Your task to perform on an android device: Open calendar and show me the fourth week of next month Image 0: 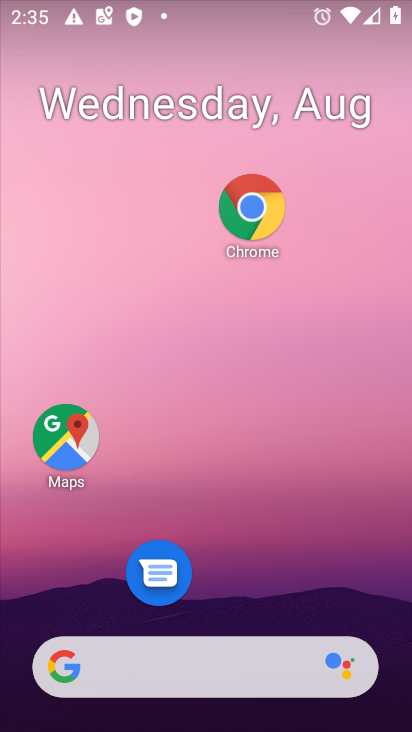
Step 0: drag from (207, 644) to (302, 207)
Your task to perform on an android device: Open calendar and show me the fourth week of next month Image 1: 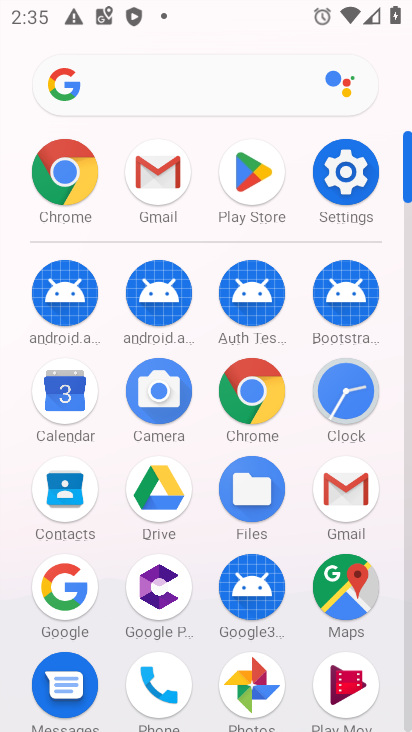
Step 1: click (64, 426)
Your task to perform on an android device: Open calendar and show me the fourth week of next month Image 2: 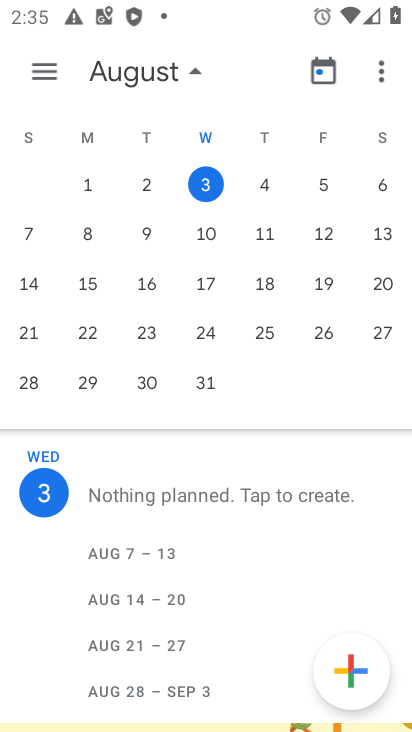
Step 2: drag from (331, 295) to (48, 261)
Your task to perform on an android device: Open calendar and show me the fourth week of next month Image 3: 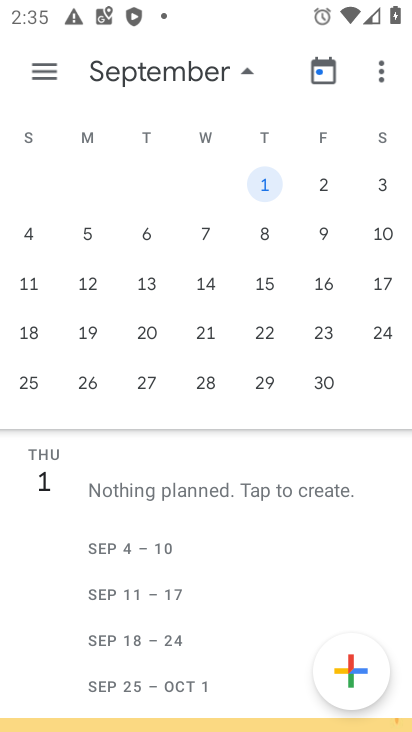
Step 3: click (34, 328)
Your task to perform on an android device: Open calendar and show me the fourth week of next month Image 4: 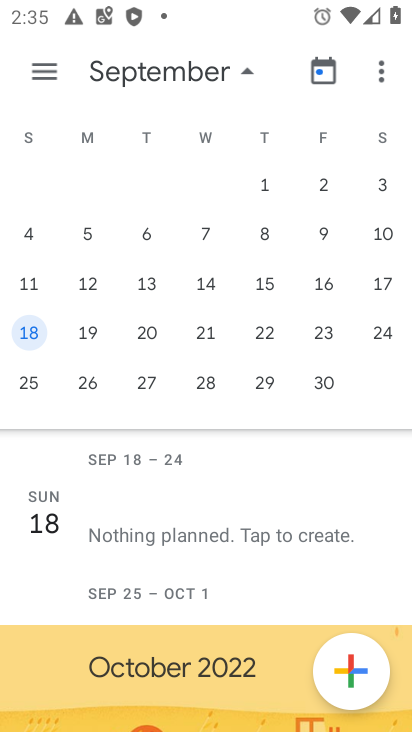
Step 4: task complete